Your task to perform on an android device: toggle wifi Image 0: 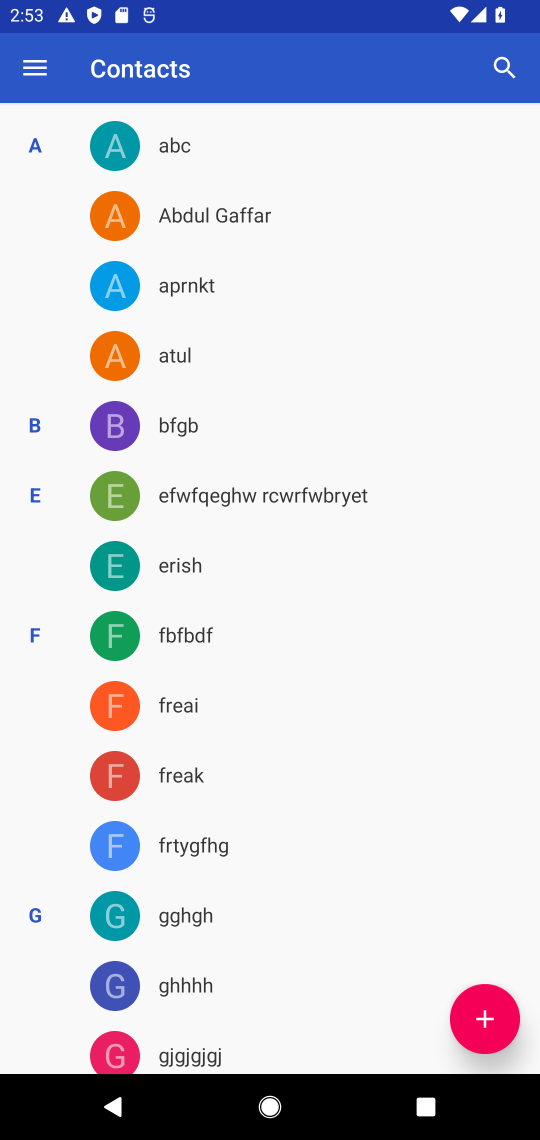
Step 0: press home button
Your task to perform on an android device: toggle wifi Image 1: 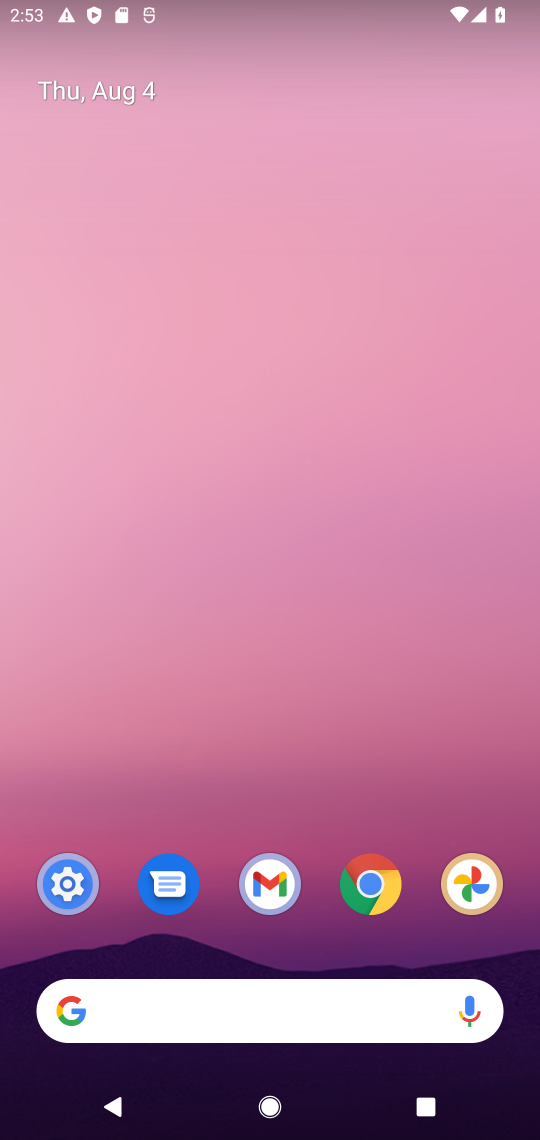
Step 1: drag from (311, 893) to (315, 176)
Your task to perform on an android device: toggle wifi Image 2: 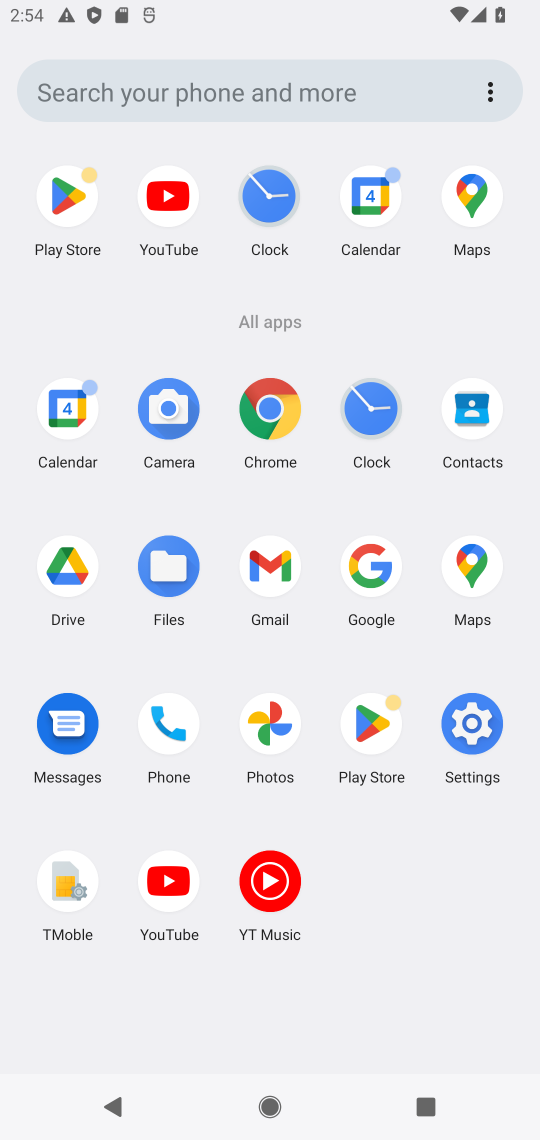
Step 2: click (482, 747)
Your task to perform on an android device: toggle wifi Image 3: 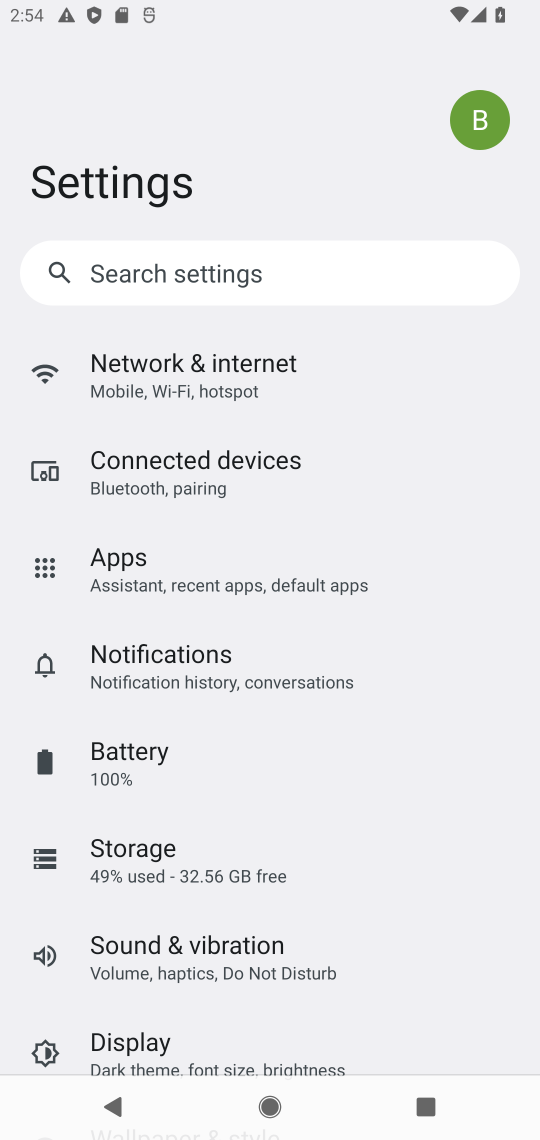
Step 3: drag from (427, 853) to (423, 710)
Your task to perform on an android device: toggle wifi Image 4: 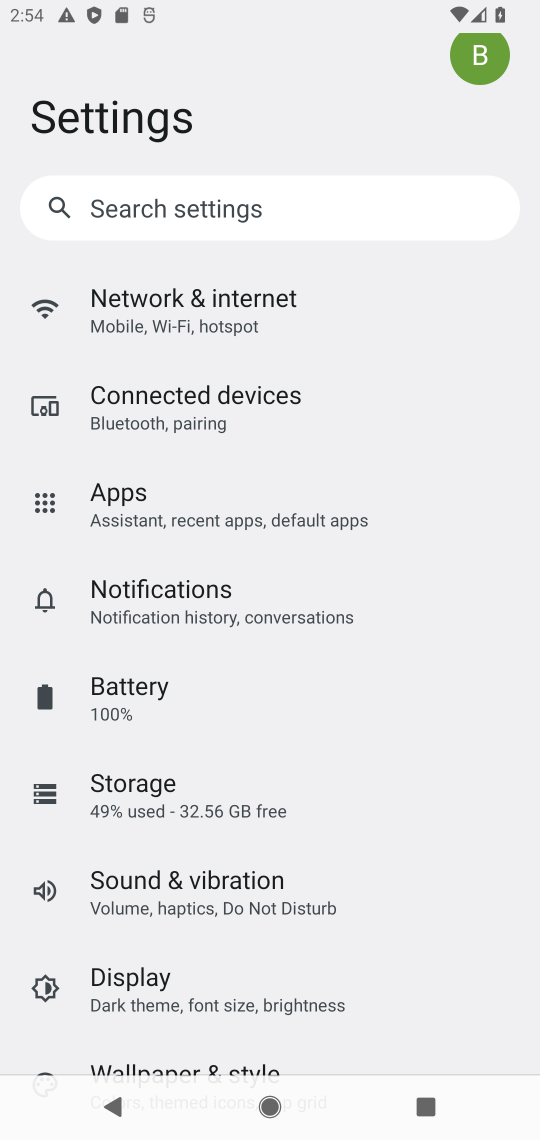
Step 4: drag from (417, 817) to (435, 681)
Your task to perform on an android device: toggle wifi Image 5: 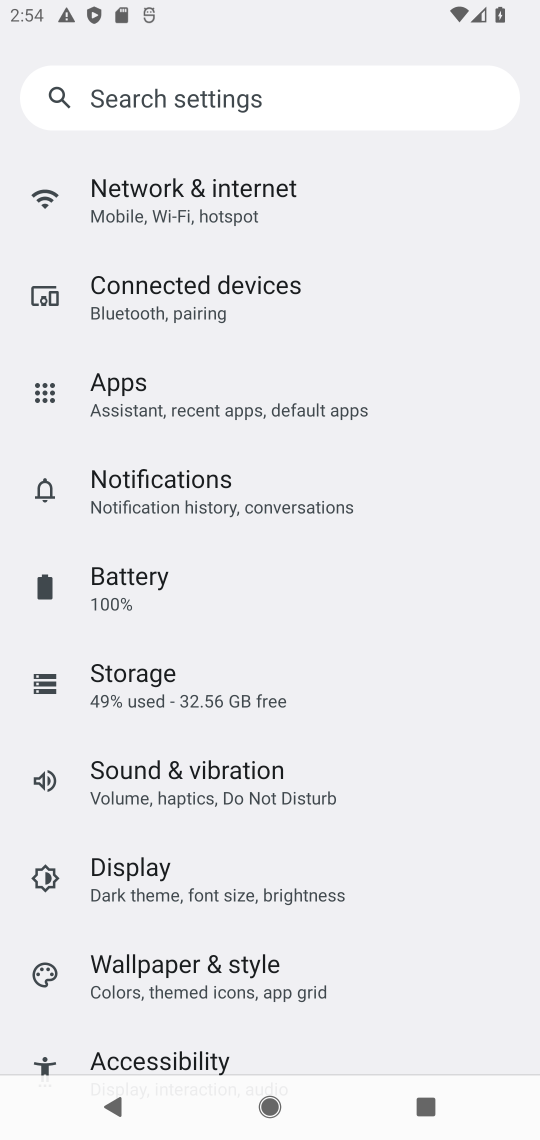
Step 5: drag from (435, 938) to (433, 755)
Your task to perform on an android device: toggle wifi Image 6: 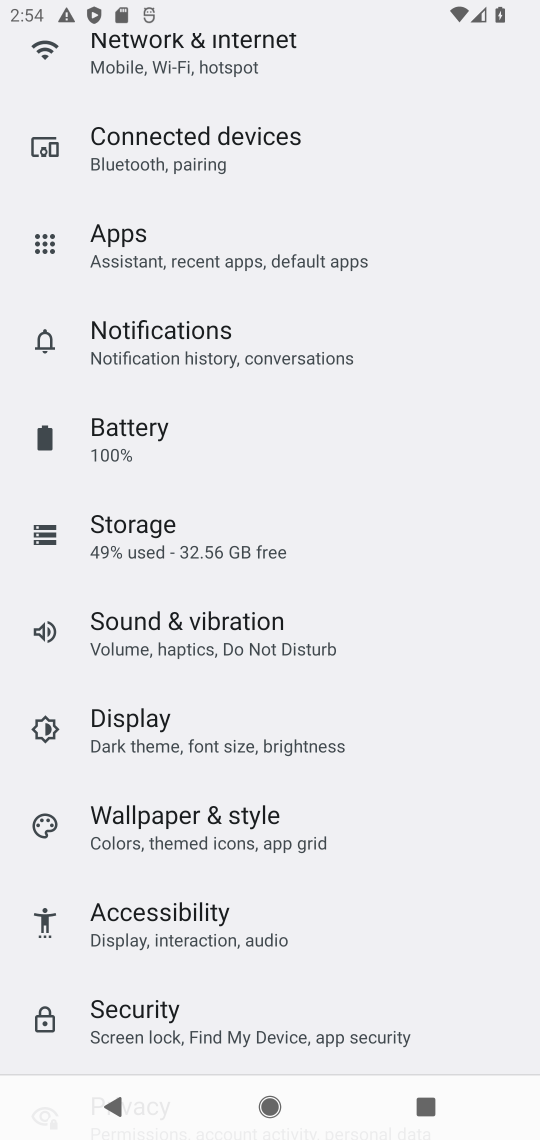
Step 6: drag from (457, 979) to (458, 754)
Your task to perform on an android device: toggle wifi Image 7: 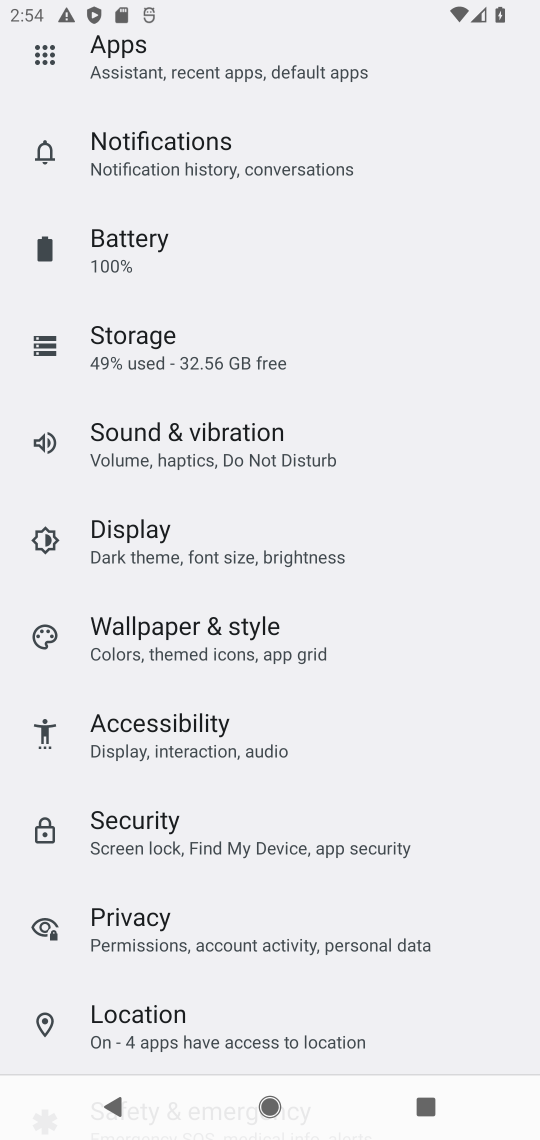
Step 7: drag from (482, 998) to (476, 811)
Your task to perform on an android device: toggle wifi Image 8: 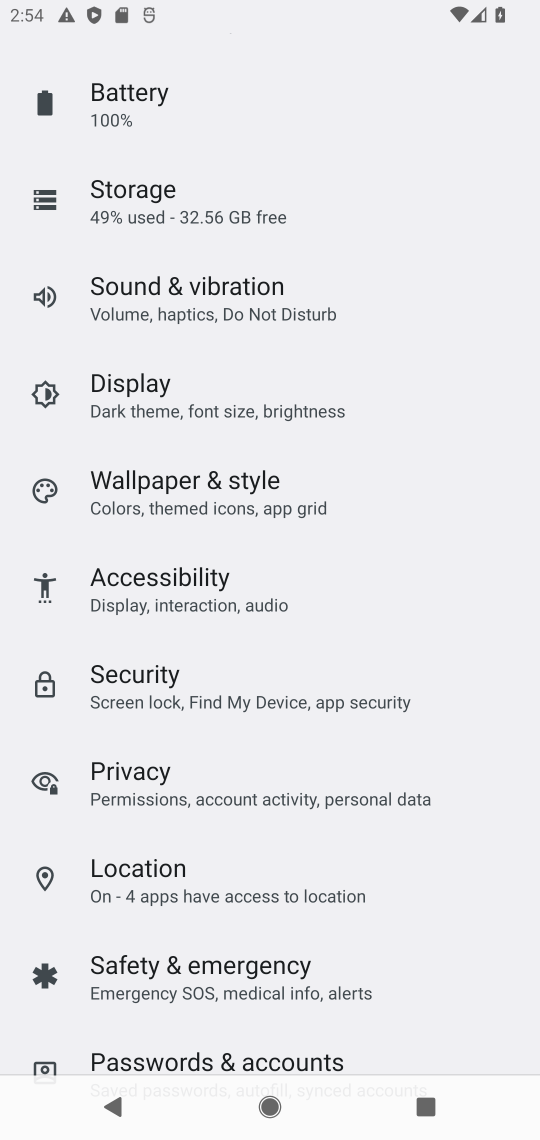
Step 8: drag from (445, 1021) to (455, 834)
Your task to perform on an android device: toggle wifi Image 9: 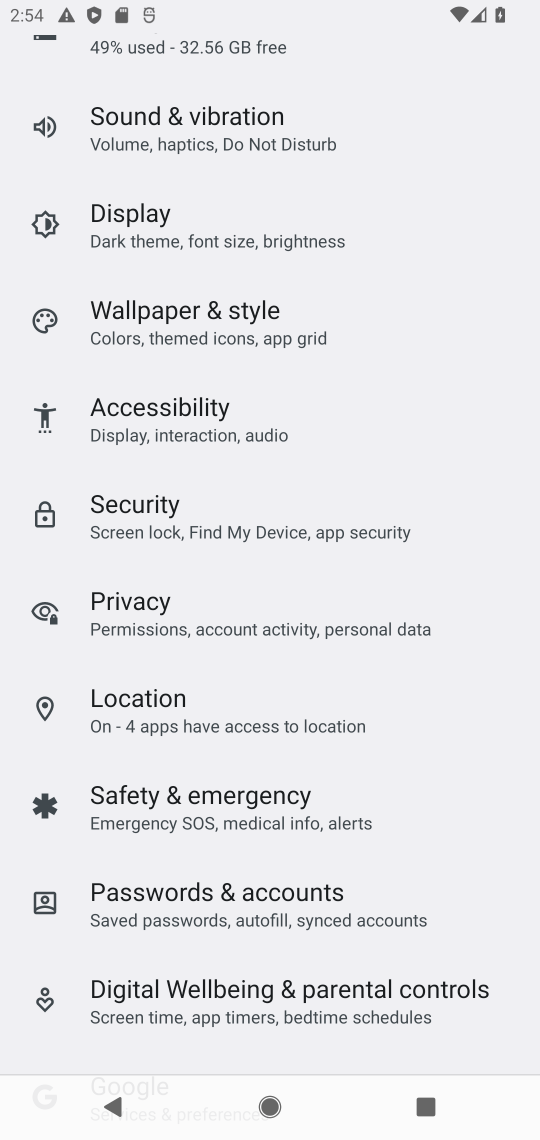
Step 9: drag from (470, 708) to (484, 856)
Your task to perform on an android device: toggle wifi Image 10: 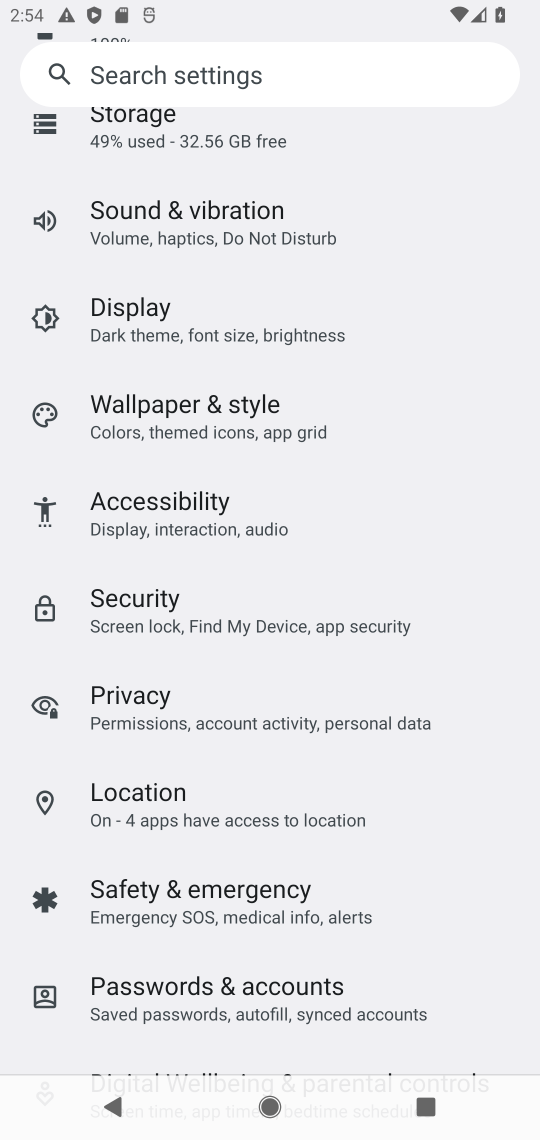
Step 10: drag from (470, 720) to (473, 870)
Your task to perform on an android device: toggle wifi Image 11: 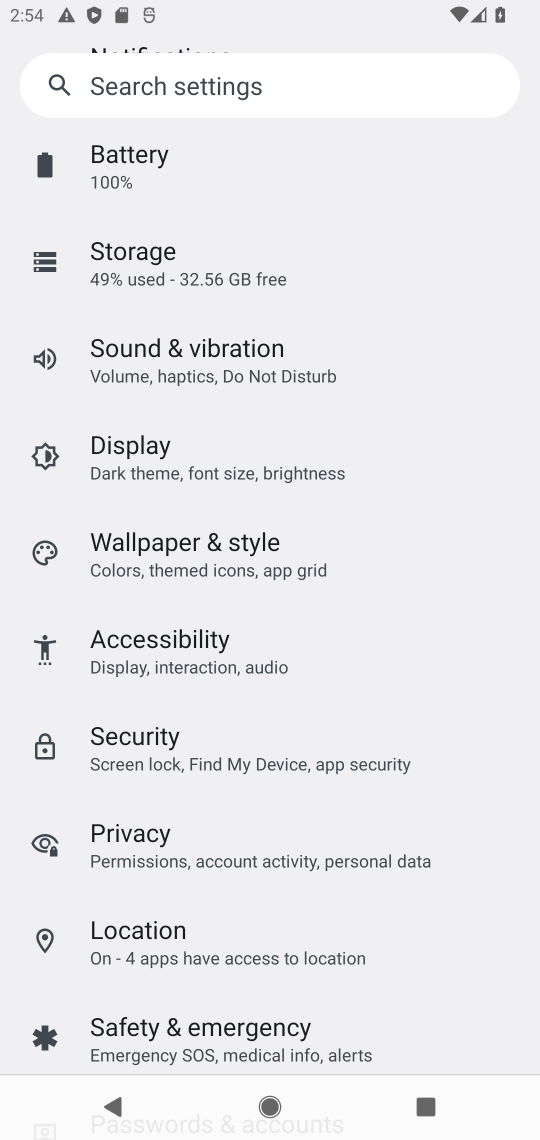
Step 11: drag from (460, 556) to (495, 822)
Your task to perform on an android device: toggle wifi Image 12: 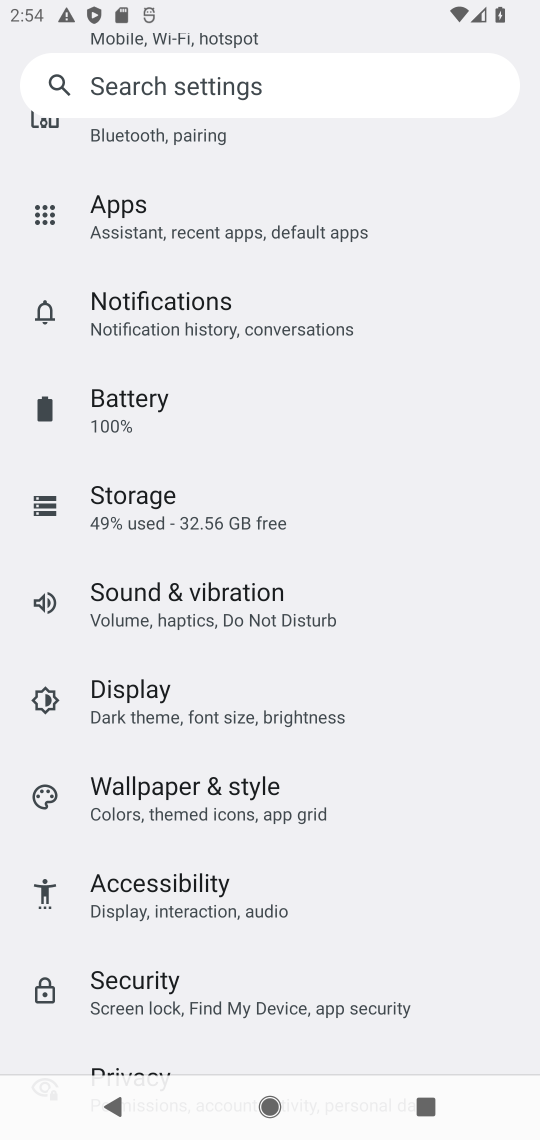
Step 12: drag from (482, 522) to (483, 713)
Your task to perform on an android device: toggle wifi Image 13: 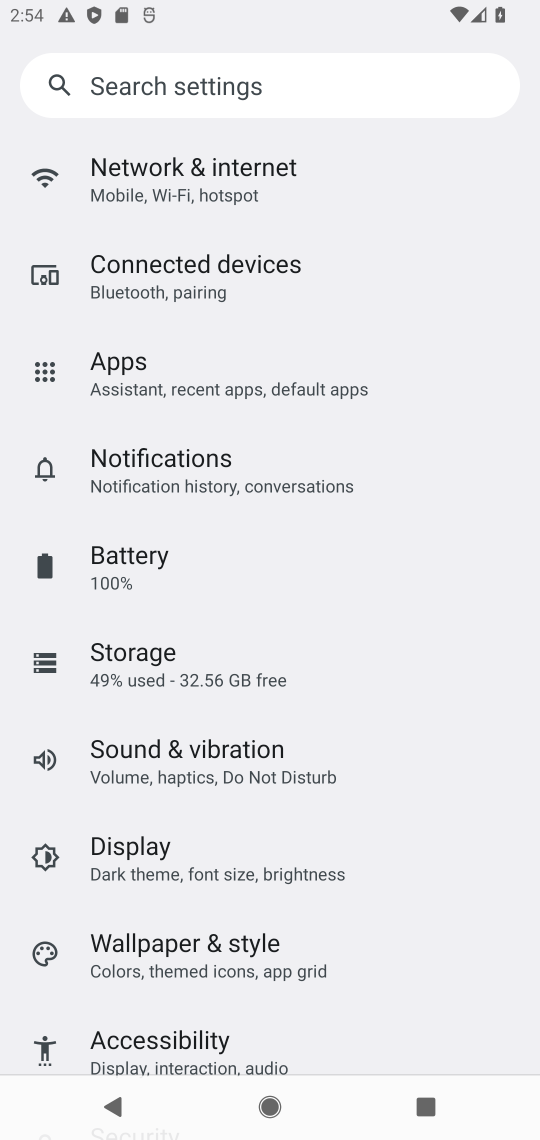
Step 13: drag from (457, 444) to (461, 666)
Your task to perform on an android device: toggle wifi Image 14: 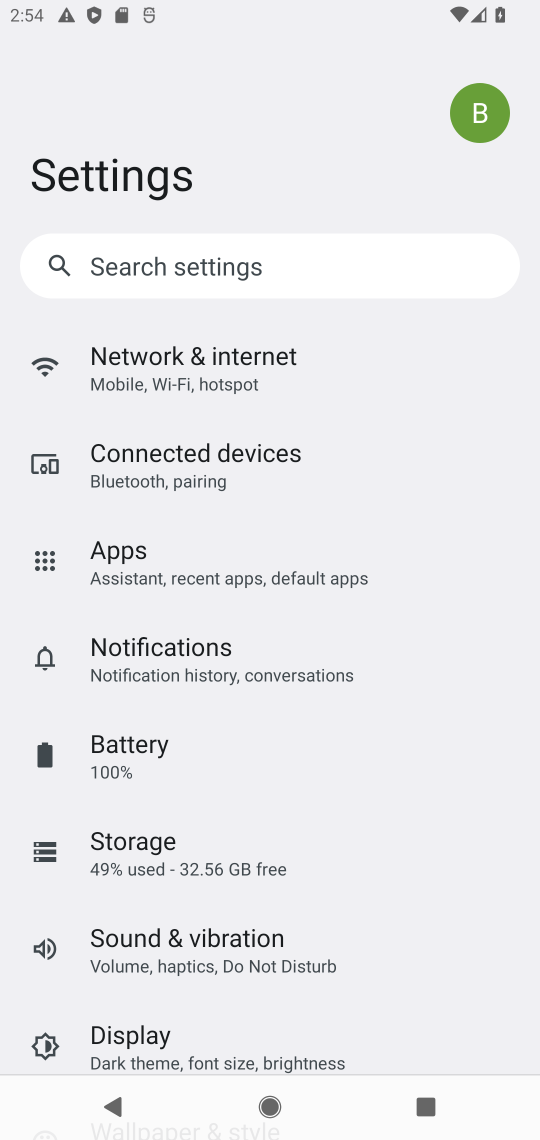
Step 14: drag from (450, 390) to (452, 673)
Your task to perform on an android device: toggle wifi Image 15: 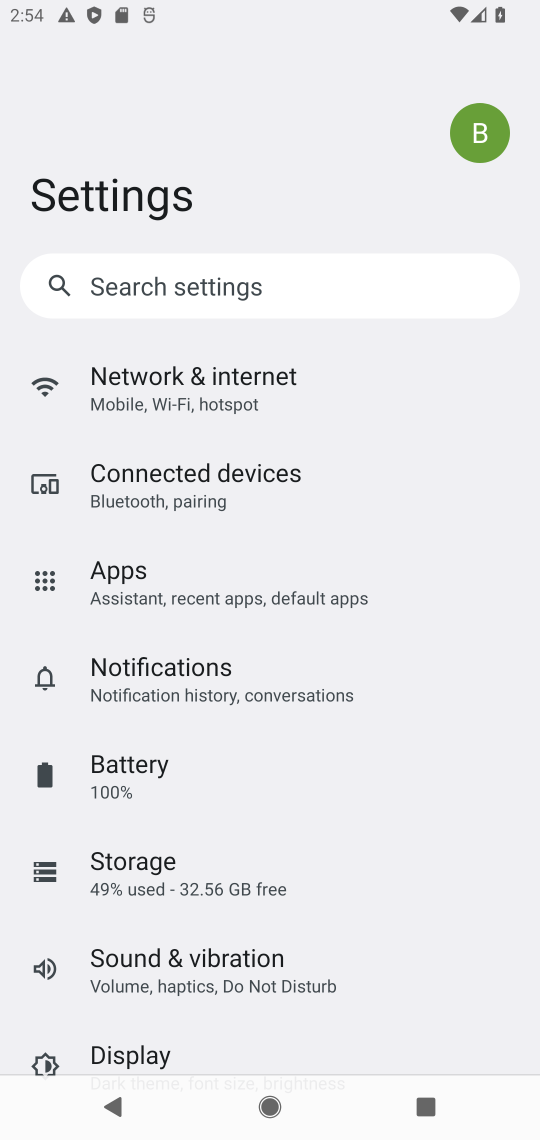
Step 15: click (331, 380)
Your task to perform on an android device: toggle wifi Image 16: 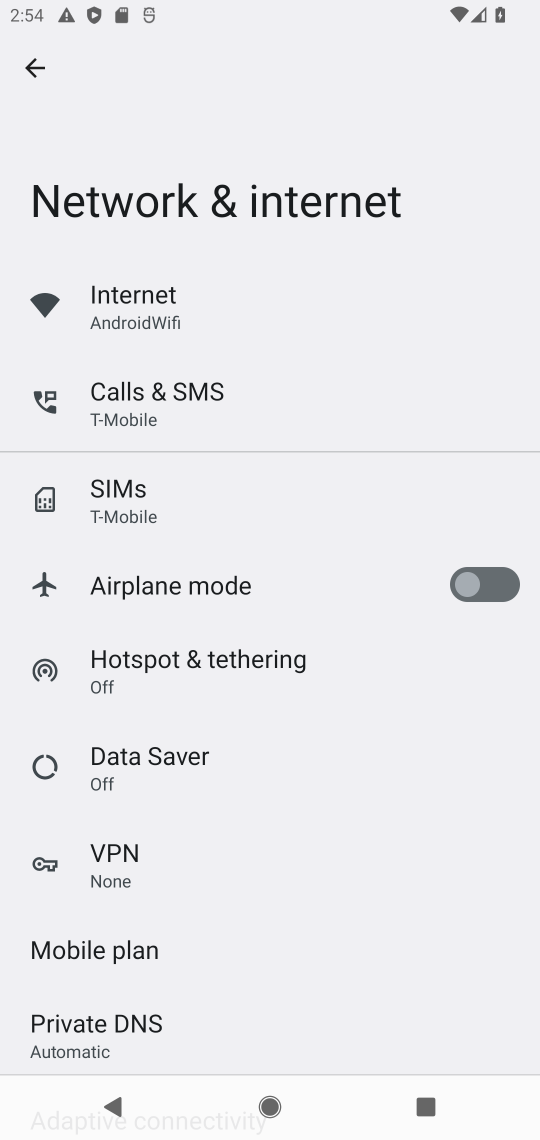
Step 16: click (174, 304)
Your task to perform on an android device: toggle wifi Image 17: 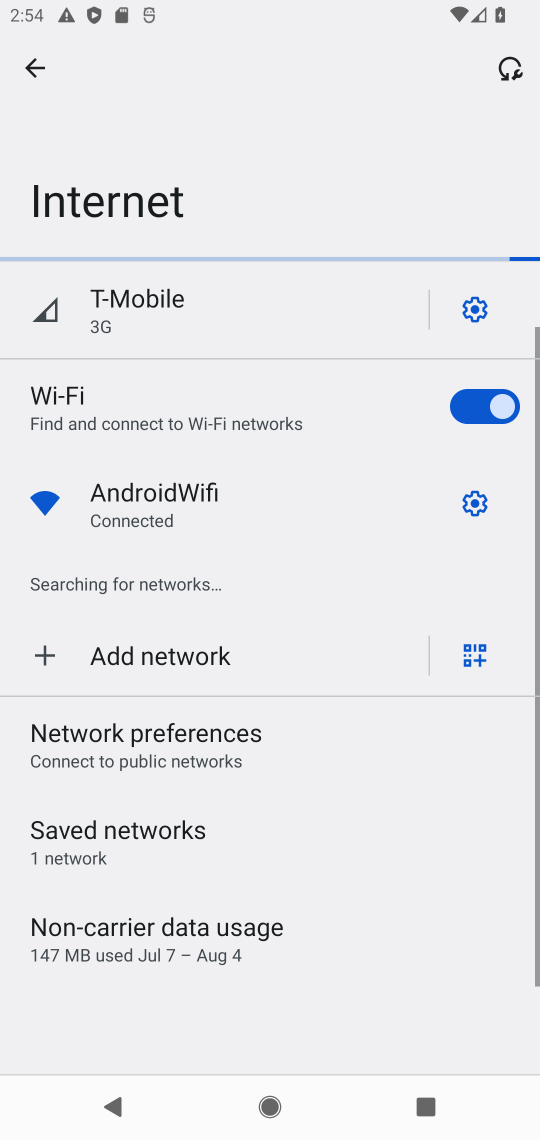
Step 17: click (482, 407)
Your task to perform on an android device: toggle wifi Image 18: 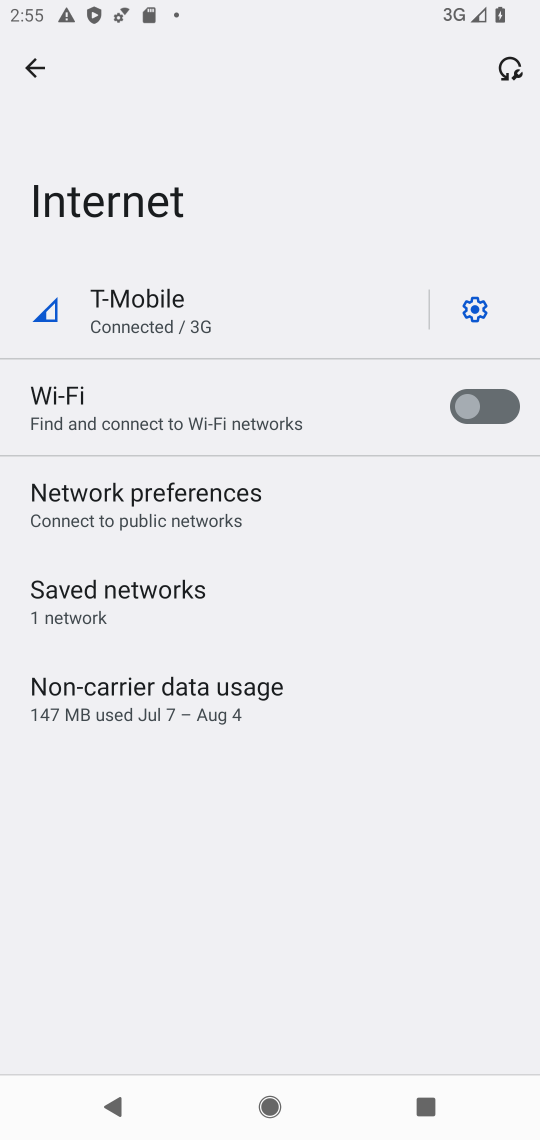
Step 18: task complete